Your task to perform on an android device: See recent photos Image 0: 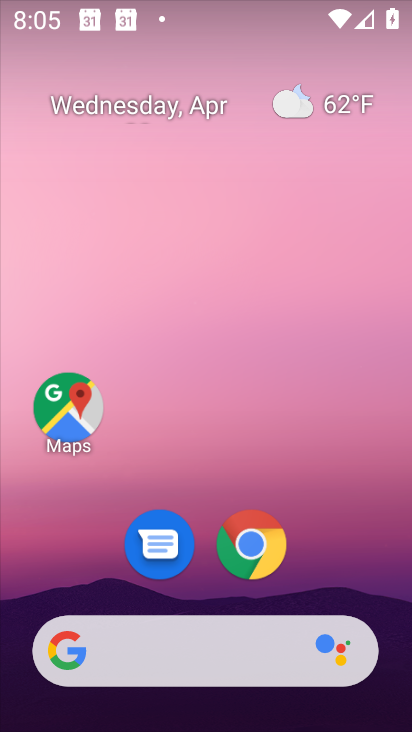
Step 0: drag from (198, 535) to (197, 162)
Your task to perform on an android device: See recent photos Image 1: 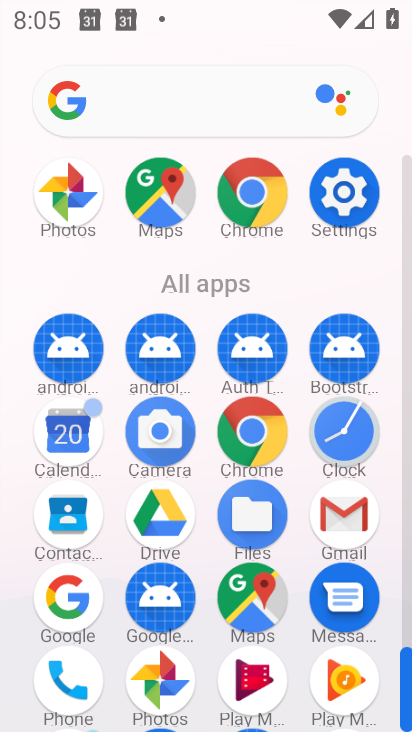
Step 1: click (58, 196)
Your task to perform on an android device: See recent photos Image 2: 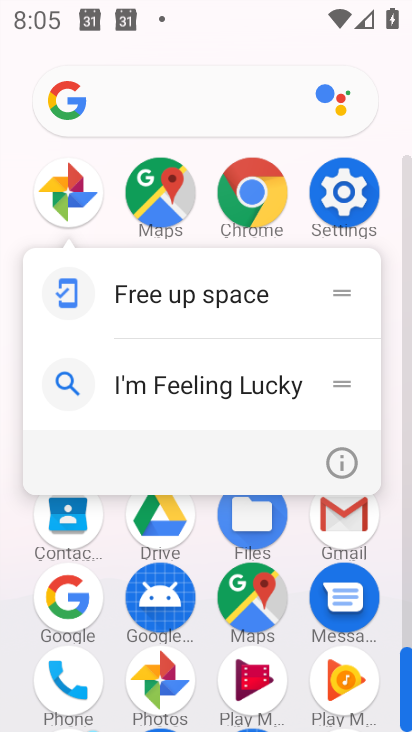
Step 2: click (58, 196)
Your task to perform on an android device: See recent photos Image 3: 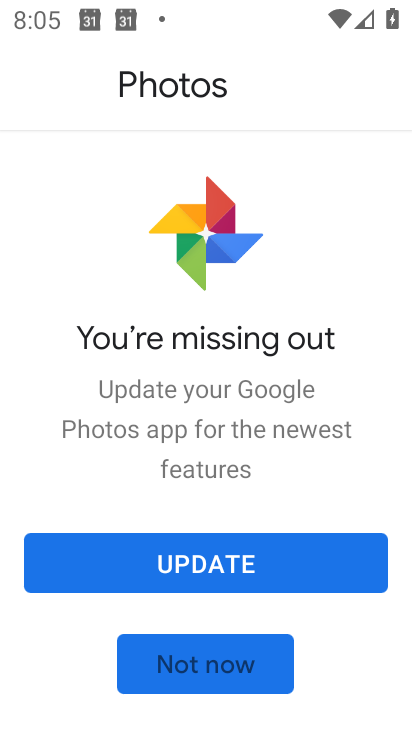
Step 3: click (157, 645)
Your task to perform on an android device: See recent photos Image 4: 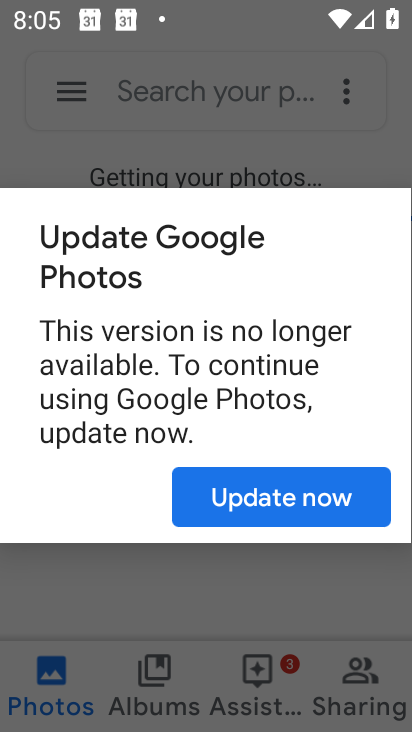
Step 4: click (215, 501)
Your task to perform on an android device: See recent photos Image 5: 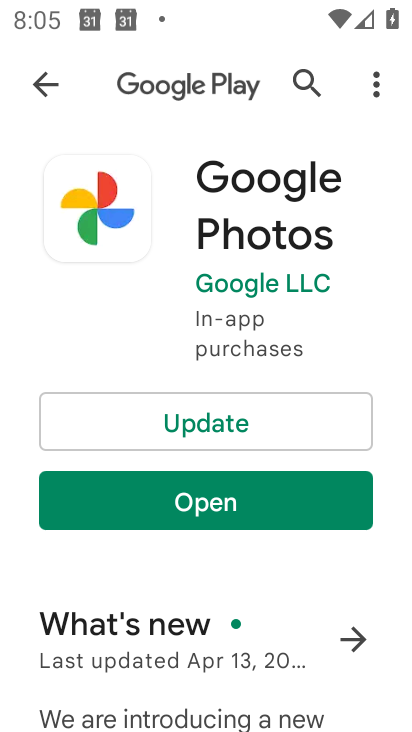
Step 5: click (208, 509)
Your task to perform on an android device: See recent photos Image 6: 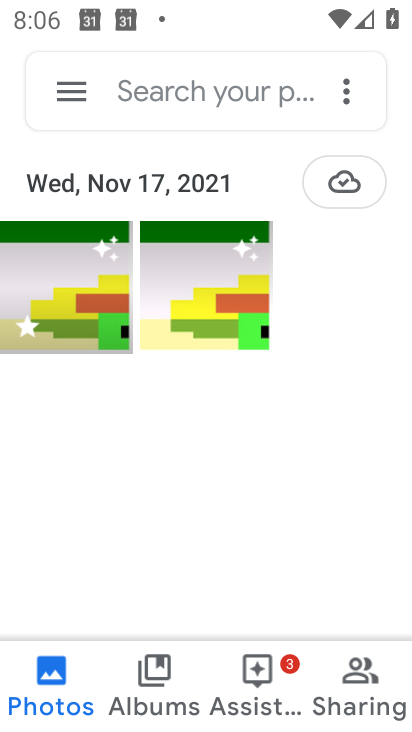
Step 6: task complete